Your task to perform on an android device: Is it going to rain this weekend? Image 0: 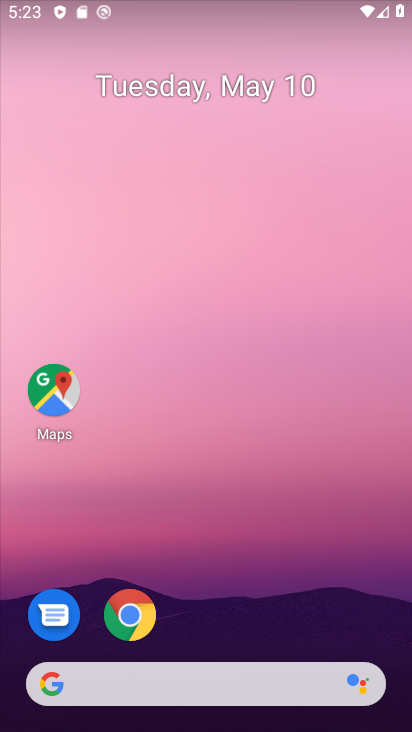
Step 0: click (239, 683)
Your task to perform on an android device: Is it going to rain this weekend? Image 1: 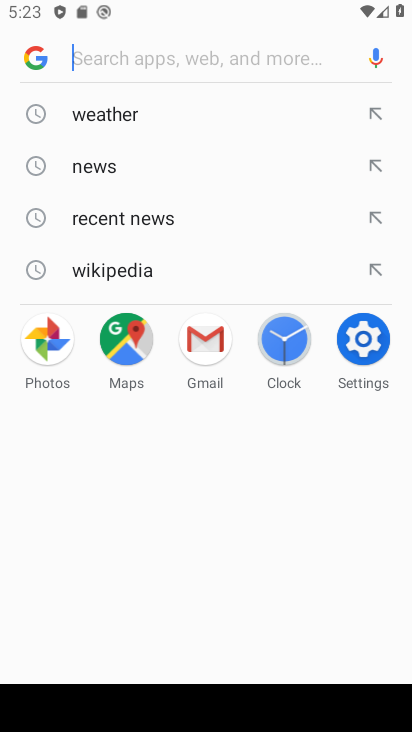
Step 1: click (122, 117)
Your task to perform on an android device: Is it going to rain this weekend? Image 2: 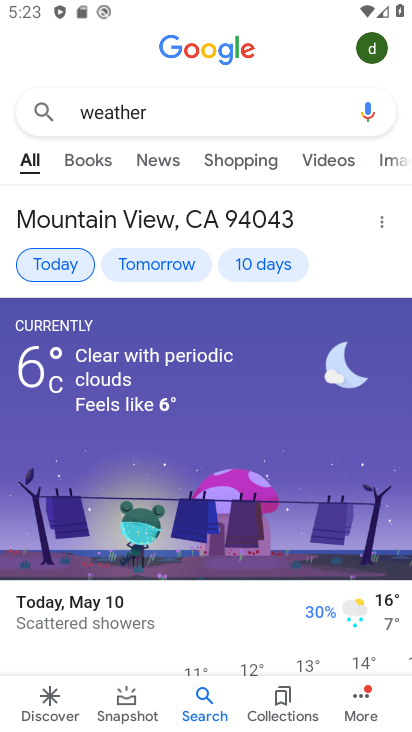
Step 2: click (278, 278)
Your task to perform on an android device: Is it going to rain this weekend? Image 3: 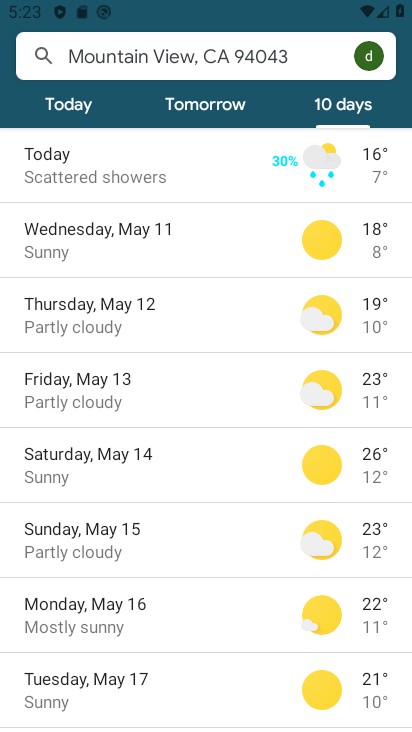
Step 3: task complete